Your task to perform on an android device: turn off location history Image 0: 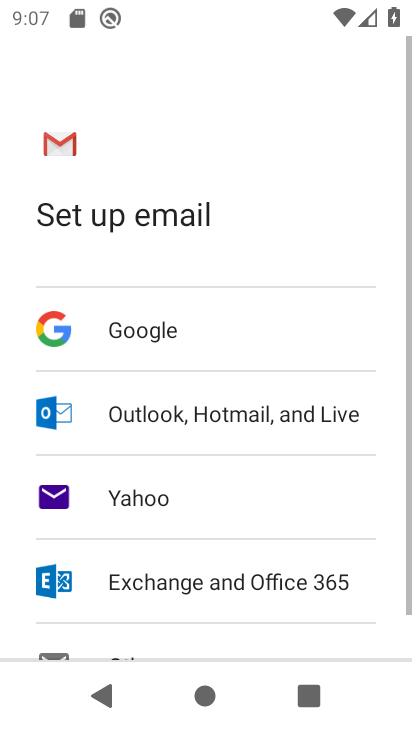
Step 0: press home button
Your task to perform on an android device: turn off location history Image 1: 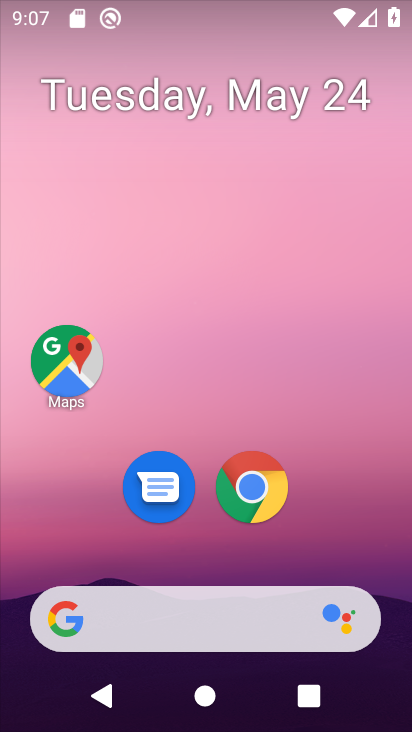
Step 1: click (61, 360)
Your task to perform on an android device: turn off location history Image 2: 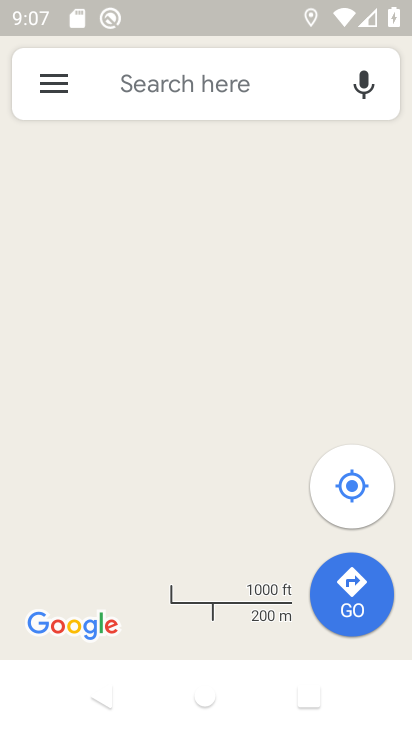
Step 2: click (50, 76)
Your task to perform on an android device: turn off location history Image 3: 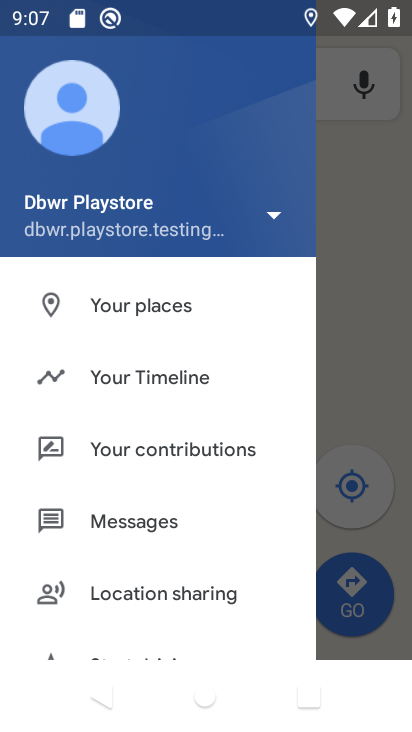
Step 3: click (163, 379)
Your task to perform on an android device: turn off location history Image 4: 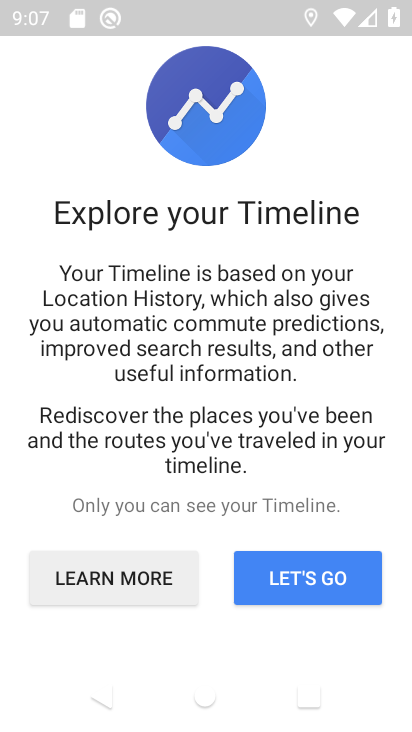
Step 4: click (305, 582)
Your task to perform on an android device: turn off location history Image 5: 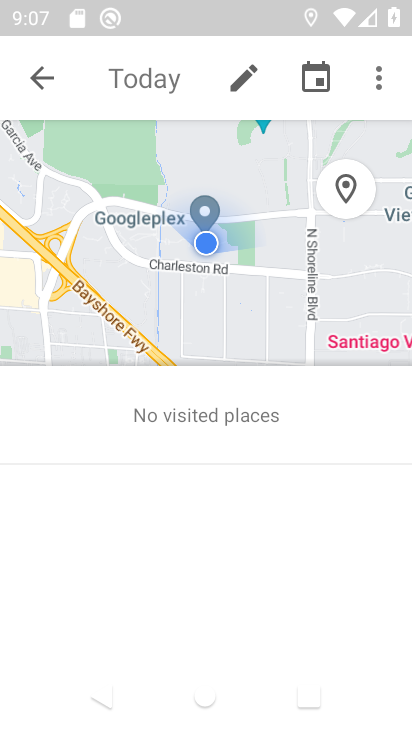
Step 5: click (379, 80)
Your task to perform on an android device: turn off location history Image 6: 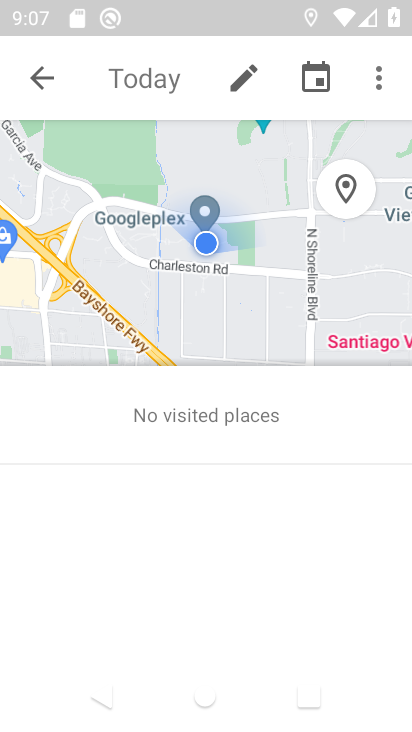
Step 6: click (380, 76)
Your task to perform on an android device: turn off location history Image 7: 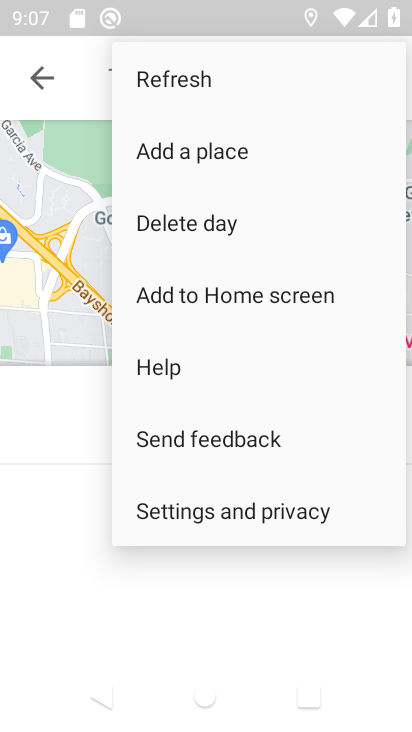
Step 7: click (217, 505)
Your task to perform on an android device: turn off location history Image 8: 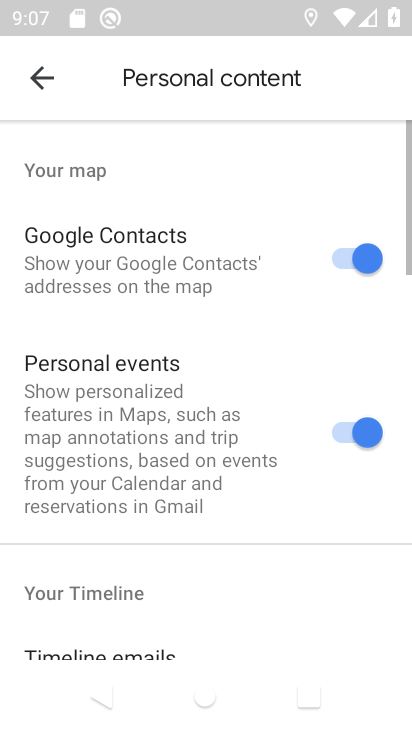
Step 8: drag from (303, 225) to (359, 109)
Your task to perform on an android device: turn off location history Image 9: 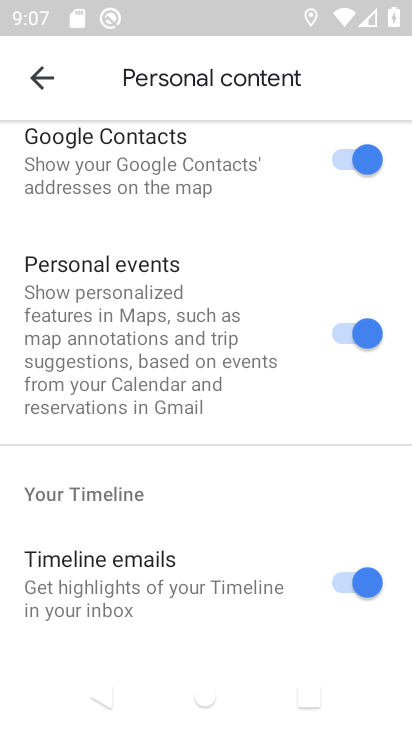
Step 9: drag from (178, 630) to (381, 34)
Your task to perform on an android device: turn off location history Image 10: 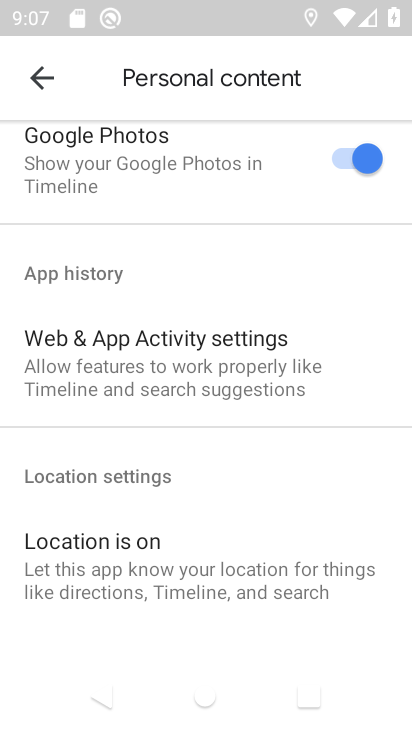
Step 10: drag from (173, 495) to (313, 134)
Your task to perform on an android device: turn off location history Image 11: 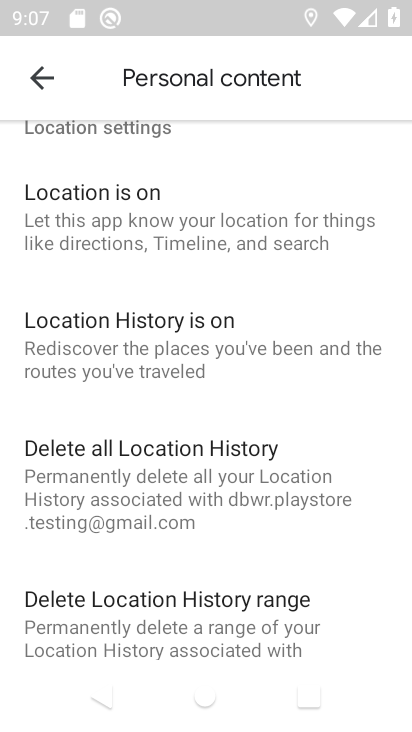
Step 11: click (154, 339)
Your task to perform on an android device: turn off location history Image 12: 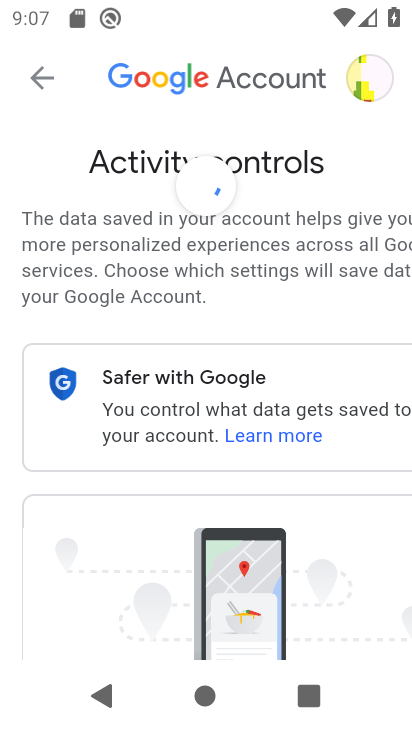
Step 12: drag from (134, 635) to (289, 186)
Your task to perform on an android device: turn off location history Image 13: 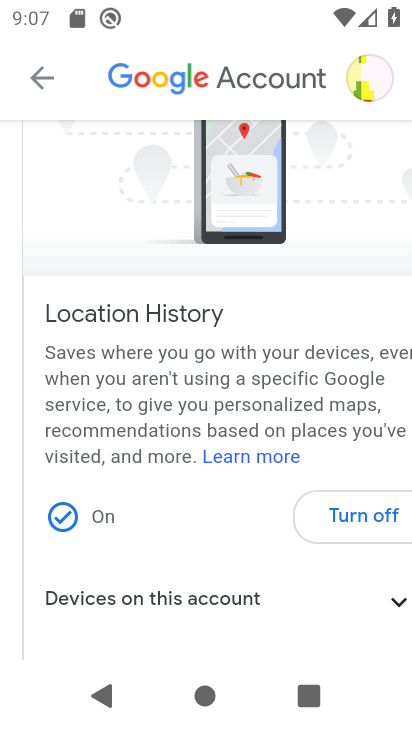
Step 13: click (362, 508)
Your task to perform on an android device: turn off location history Image 14: 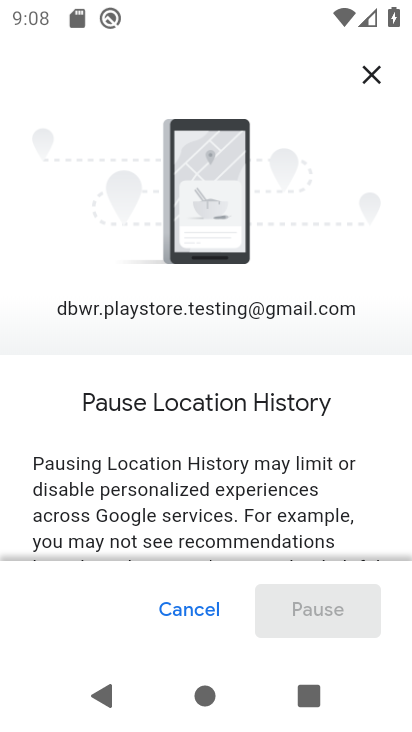
Step 14: drag from (215, 512) to (325, 133)
Your task to perform on an android device: turn off location history Image 15: 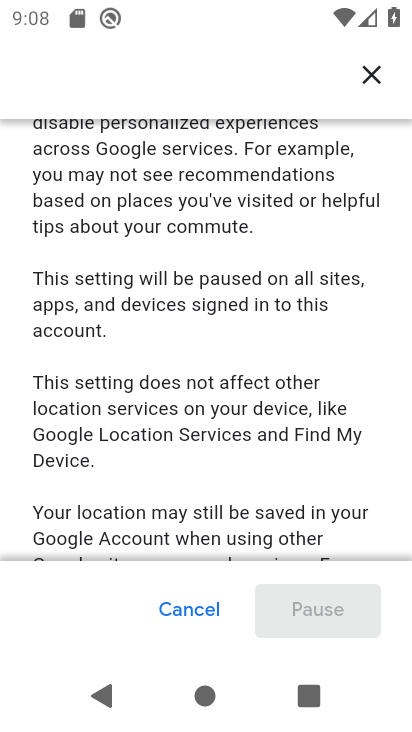
Step 15: drag from (250, 542) to (354, 83)
Your task to perform on an android device: turn off location history Image 16: 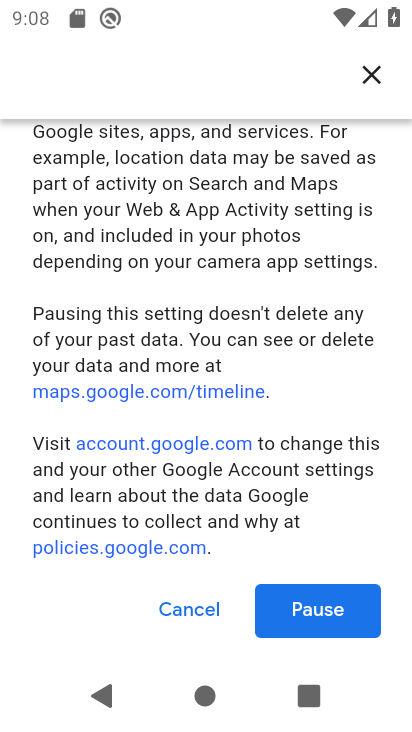
Step 16: click (323, 611)
Your task to perform on an android device: turn off location history Image 17: 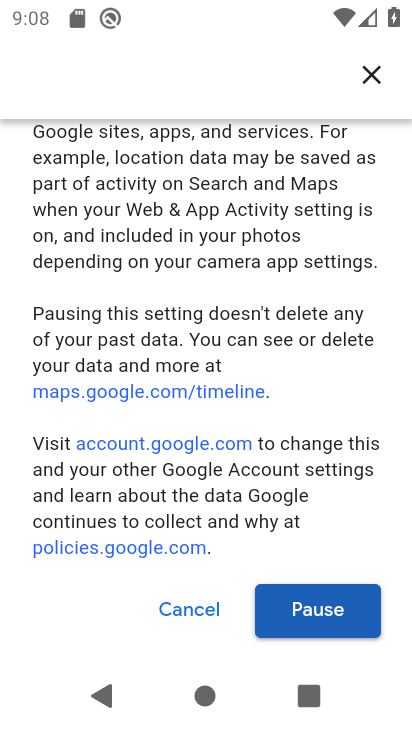
Step 17: click (317, 610)
Your task to perform on an android device: turn off location history Image 18: 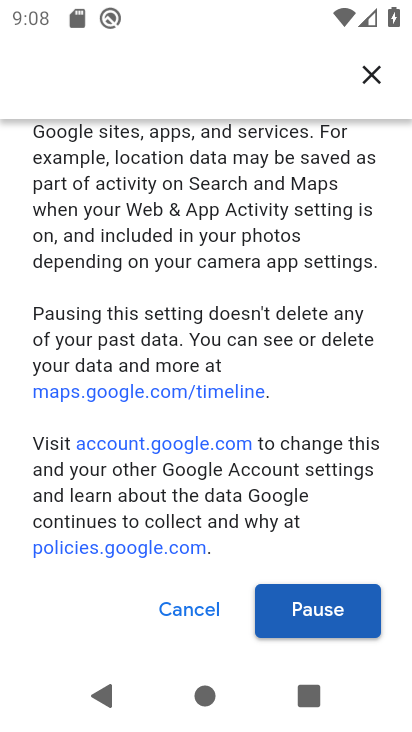
Step 18: click (317, 610)
Your task to perform on an android device: turn off location history Image 19: 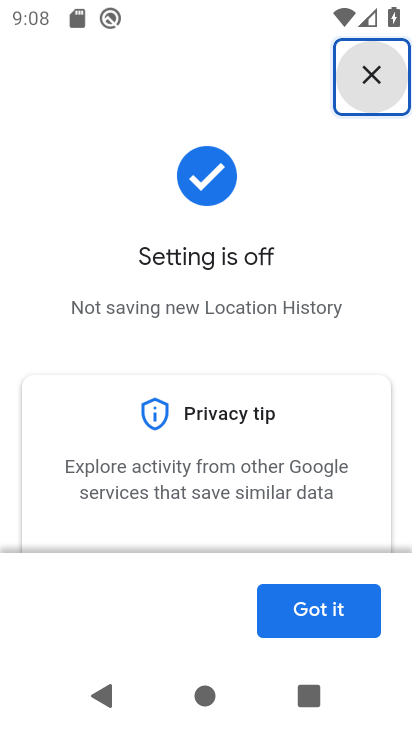
Step 19: click (317, 611)
Your task to perform on an android device: turn off location history Image 20: 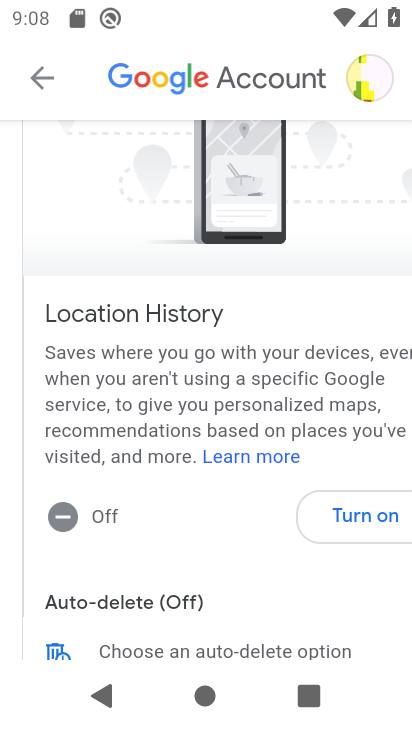
Step 20: task complete